Your task to perform on an android device: Is it going to rain today? Image 0: 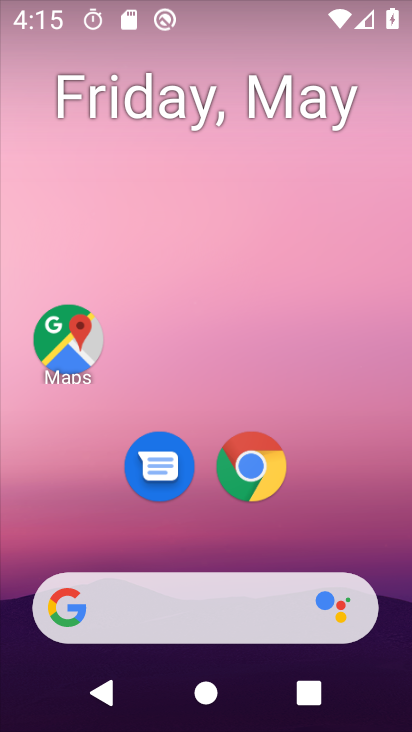
Step 0: drag from (0, 195) to (411, 199)
Your task to perform on an android device: Is it going to rain today? Image 1: 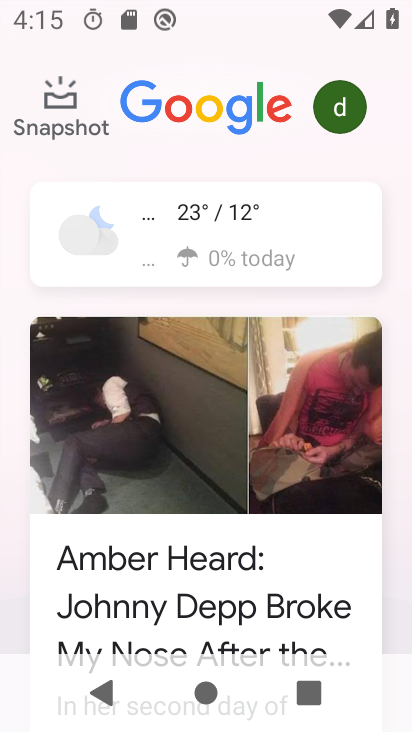
Step 1: click (216, 244)
Your task to perform on an android device: Is it going to rain today? Image 2: 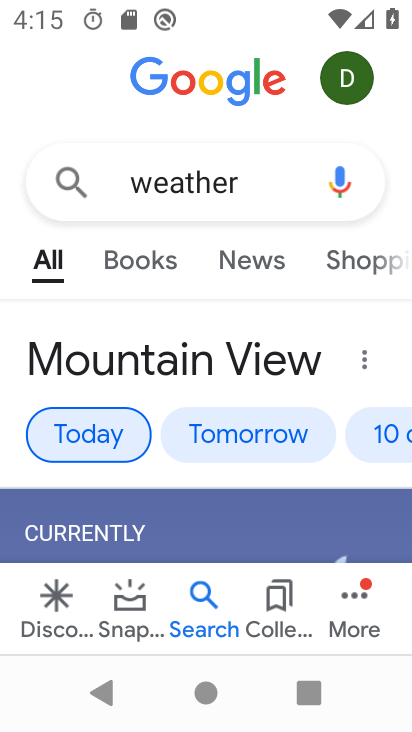
Step 2: task complete